Your task to perform on an android device: Open the calendar and show me this week's events? Image 0: 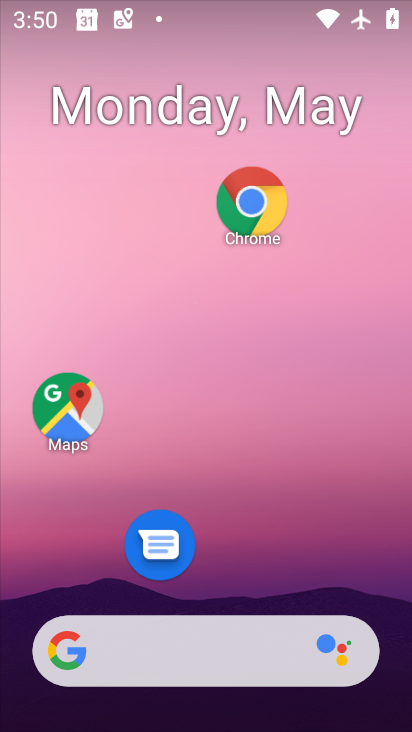
Step 0: drag from (217, 585) to (242, 147)
Your task to perform on an android device: Open the calendar and show me this week's events? Image 1: 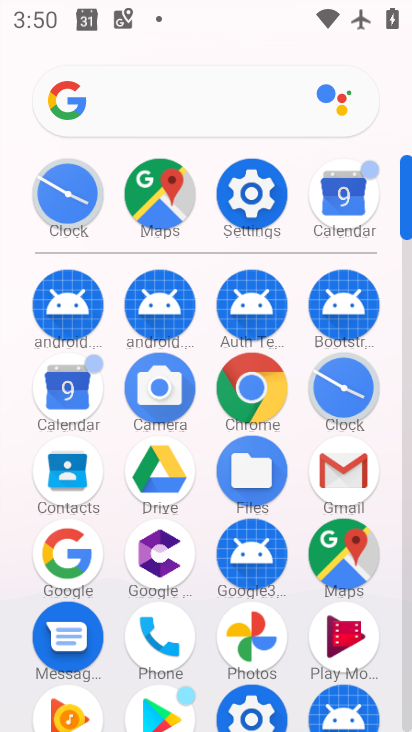
Step 1: click (339, 207)
Your task to perform on an android device: Open the calendar and show me this week's events? Image 2: 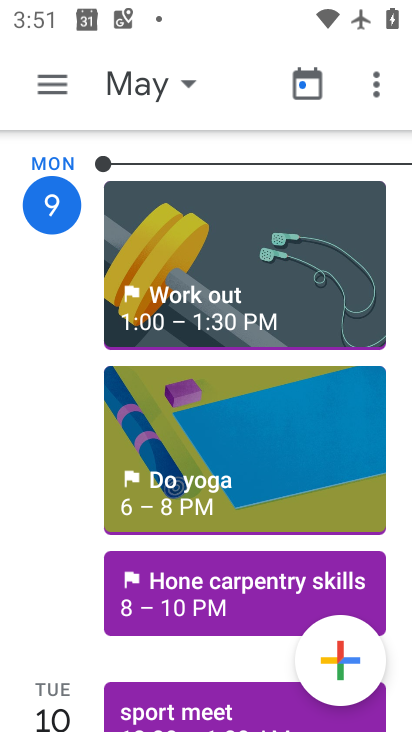
Step 2: click (179, 79)
Your task to perform on an android device: Open the calendar and show me this week's events? Image 3: 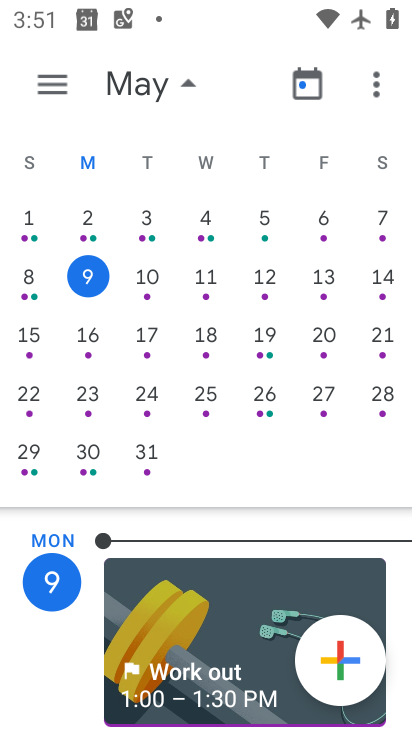
Step 3: task complete